Your task to perform on an android device: open a bookmark in the chrome app Image 0: 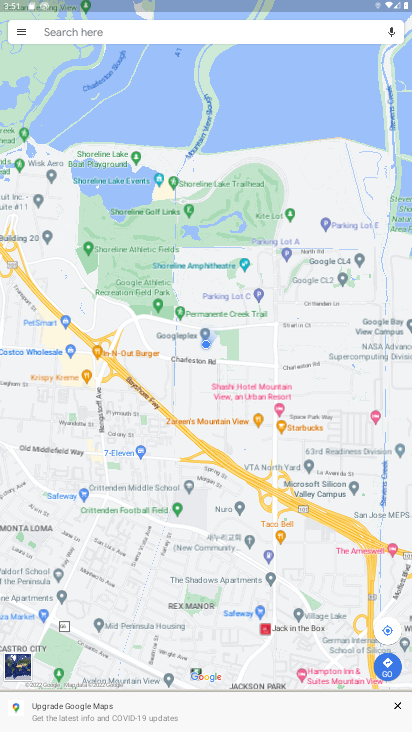
Step 0: press home button
Your task to perform on an android device: open a bookmark in the chrome app Image 1: 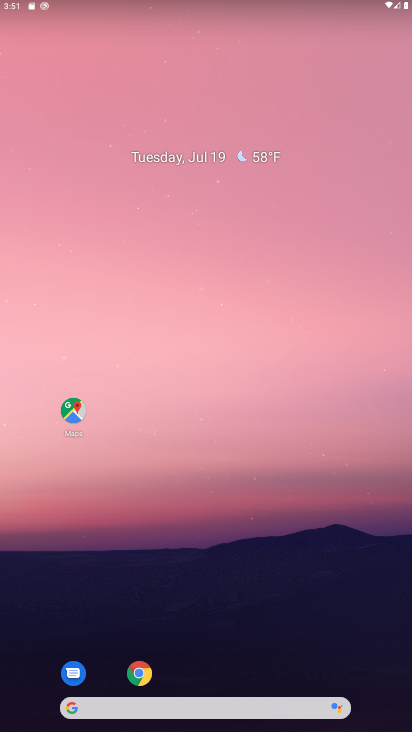
Step 1: drag from (258, 563) to (320, 42)
Your task to perform on an android device: open a bookmark in the chrome app Image 2: 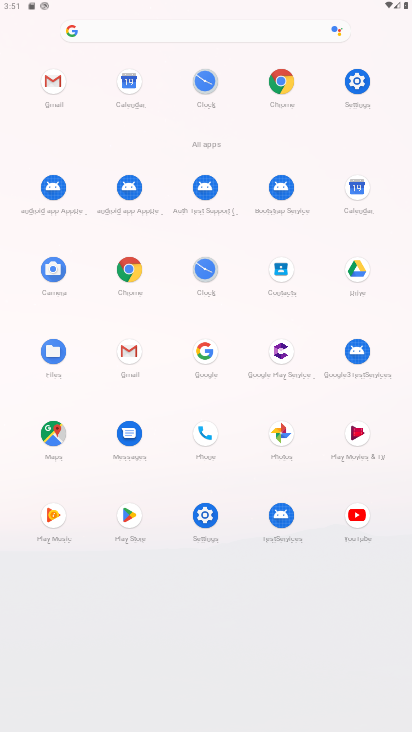
Step 2: click (122, 268)
Your task to perform on an android device: open a bookmark in the chrome app Image 3: 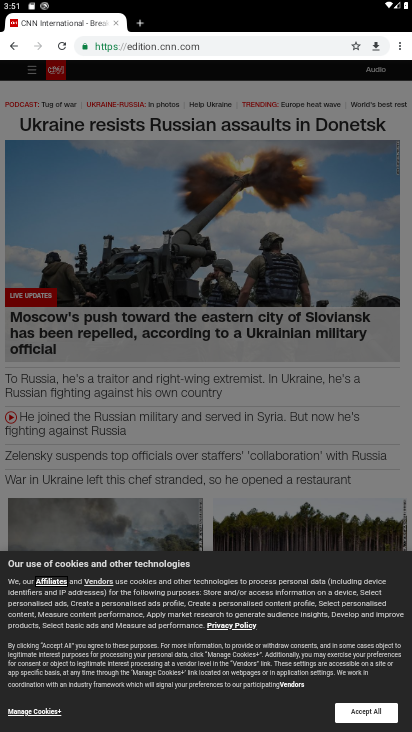
Step 3: drag from (384, 96) to (357, 20)
Your task to perform on an android device: open a bookmark in the chrome app Image 4: 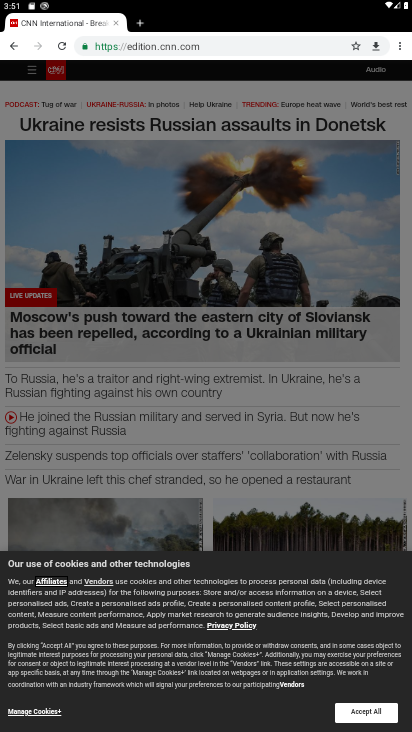
Step 4: click (399, 45)
Your task to perform on an android device: open a bookmark in the chrome app Image 5: 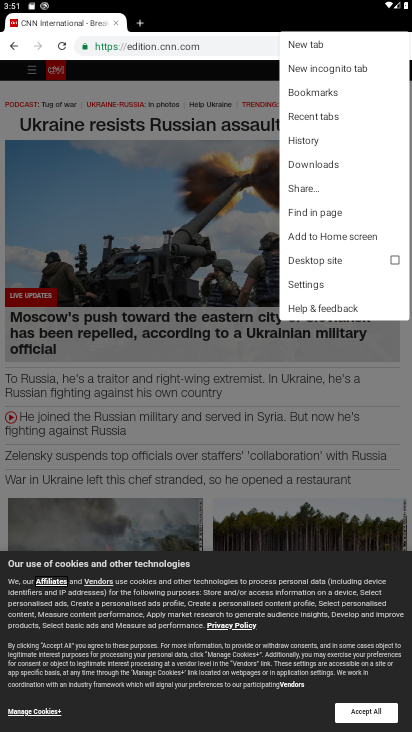
Step 5: click (328, 93)
Your task to perform on an android device: open a bookmark in the chrome app Image 6: 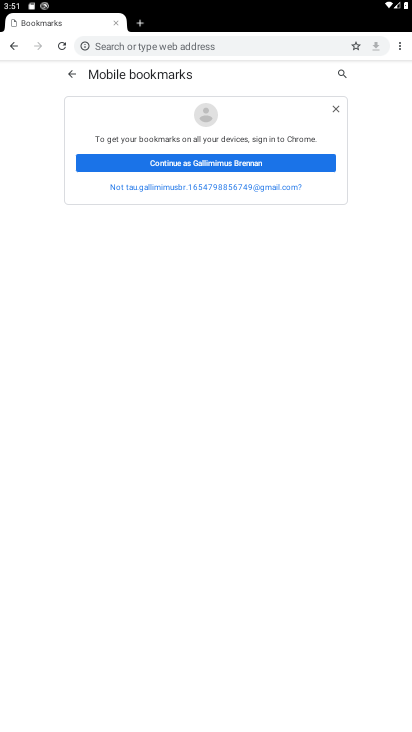
Step 6: task complete